Your task to perform on an android device: Open accessibility settings Image 0: 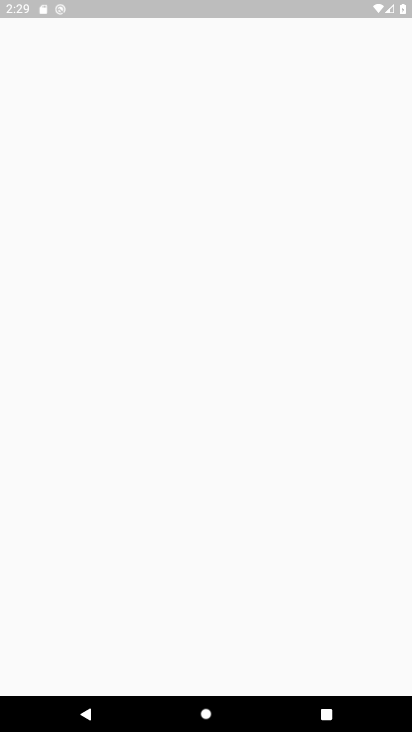
Step 0: press home button
Your task to perform on an android device: Open accessibility settings Image 1: 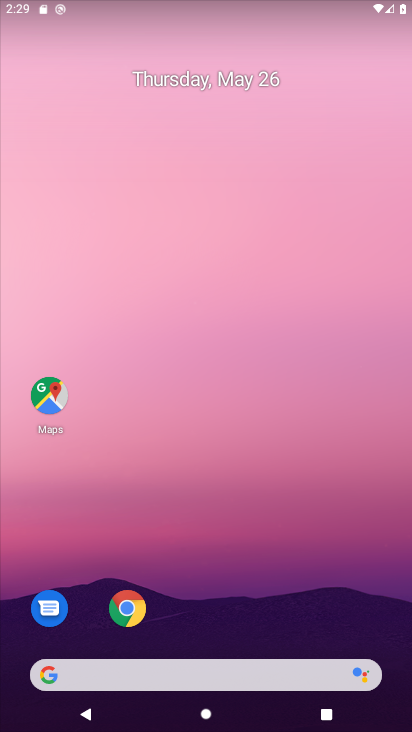
Step 1: drag from (181, 649) to (286, 168)
Your task to perform on an android device: Open accessibility settings Image 2: 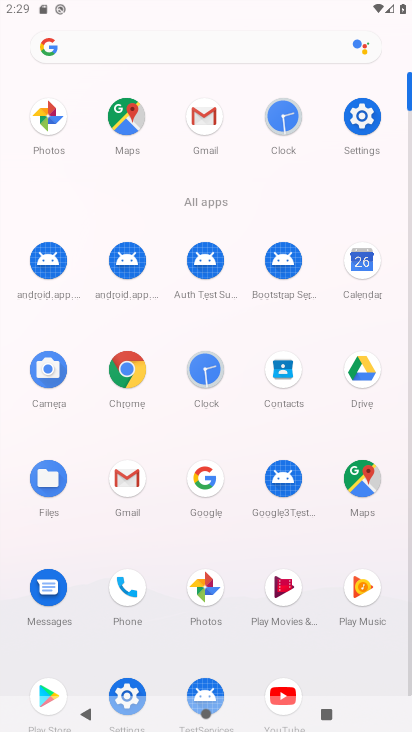
Step 2: click (122, 682)
Your task to perform on an android device: Open accessibility settings Image 3: 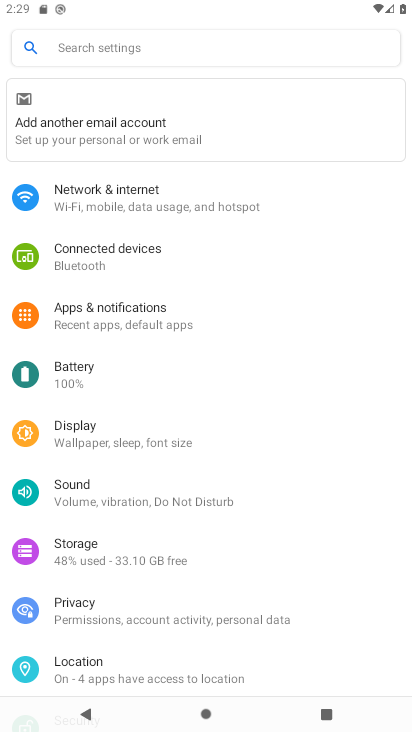
Step 3: drag from (136, 595) to (288, 77)
Your task to perform on an android device: Open accessibility settings Image 4: 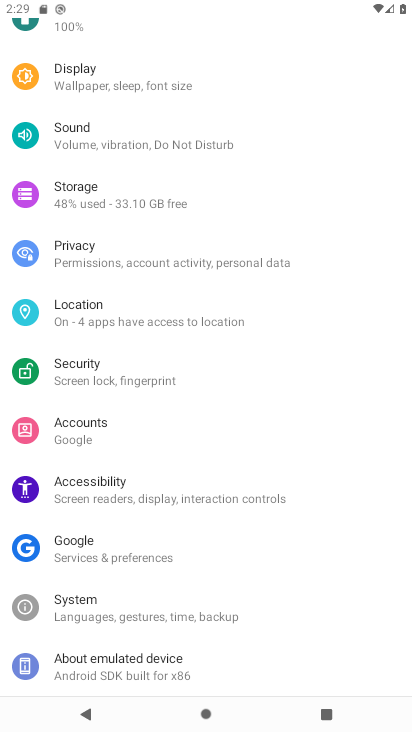
Step 4: click (135, 496)
Your task to perform on an android device: Open accessibility settings Image 5: 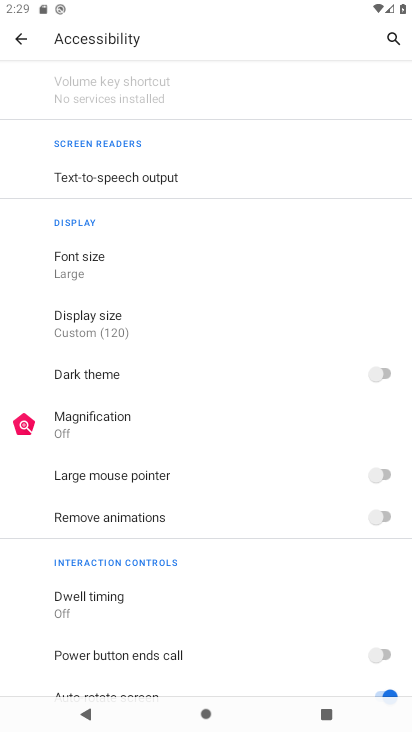
Step 5: task complete